Your task to perform on an android device: Open notification settings Image 0: 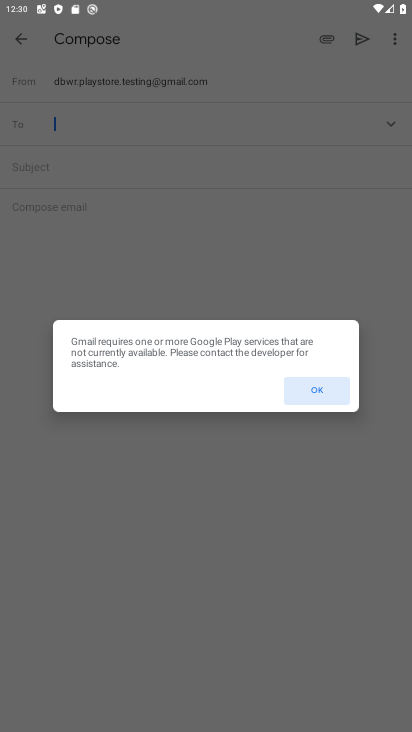
Step 0: press home button
Your task to perform on an android device: Open notification settings Image 1: 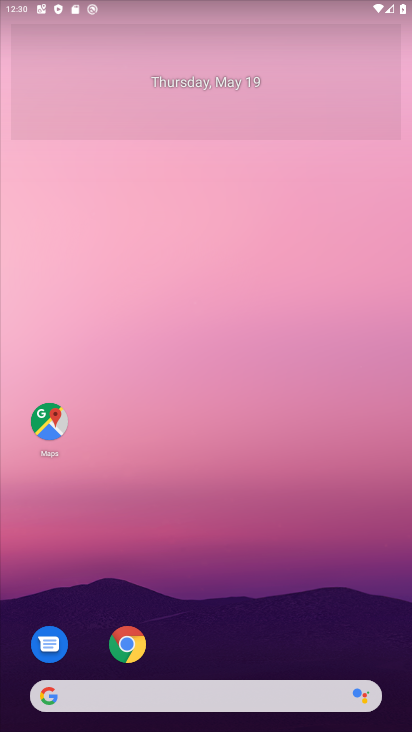
Step 1: drag from (356, 599) to (344, 224)
Your task to perform on an android device: Open notification settings Image 2: 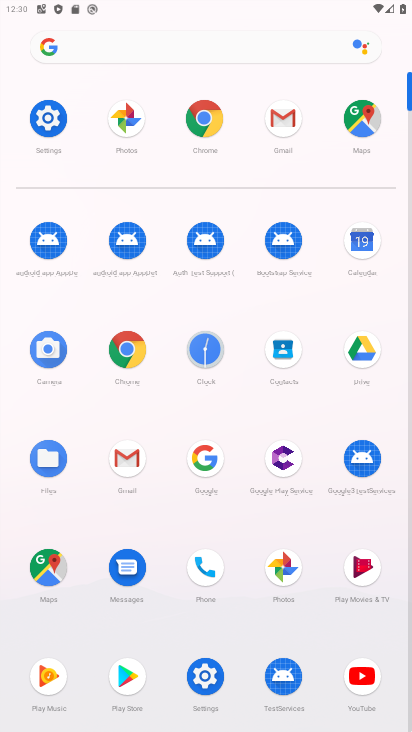
Step 2: click (212, 690)
Your task to perform on an android device: Open notification settings Image 3: 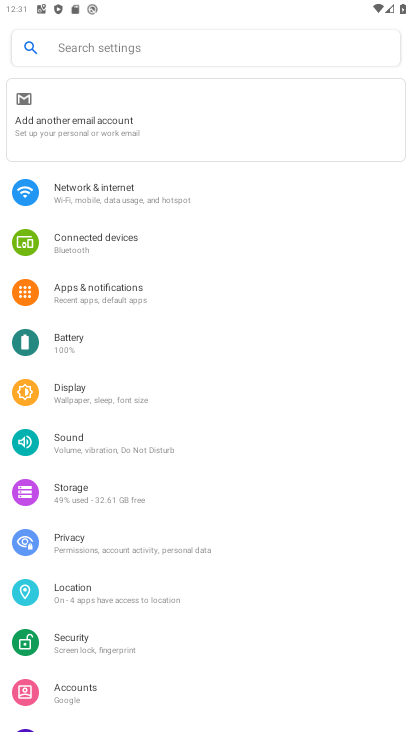
Step 3: click (131, 284)
Your task to perform on an android device: Open notification settings Image 4: 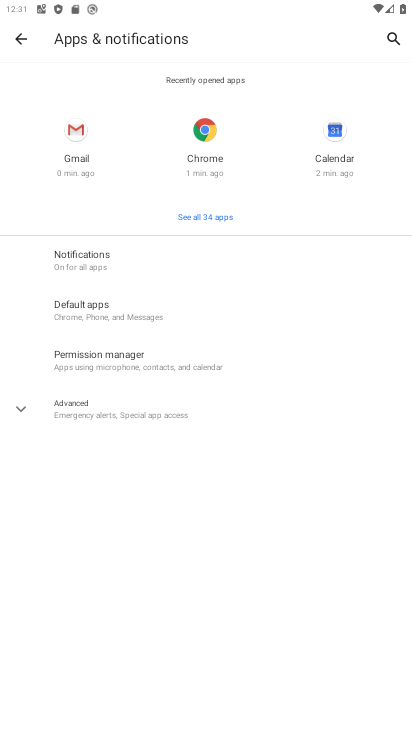
Step 4: click (128, 260)
Your task to perform on an android device: Open notification settings Image 5: 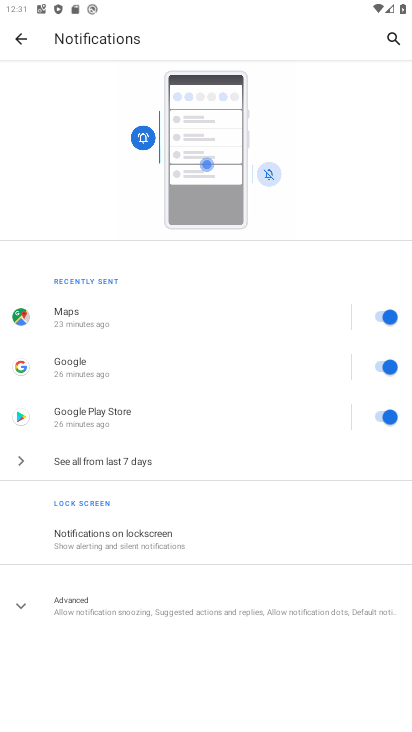
Step 5: click (153, 592)
Your task to perform on an android device: Open notification settings Image 6: 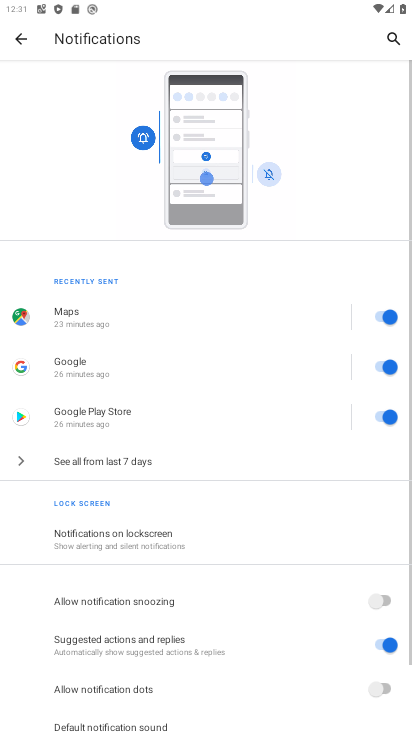
Step 6: task complete